Your task to perform on an android device: Toggle the flashlight Image 0: 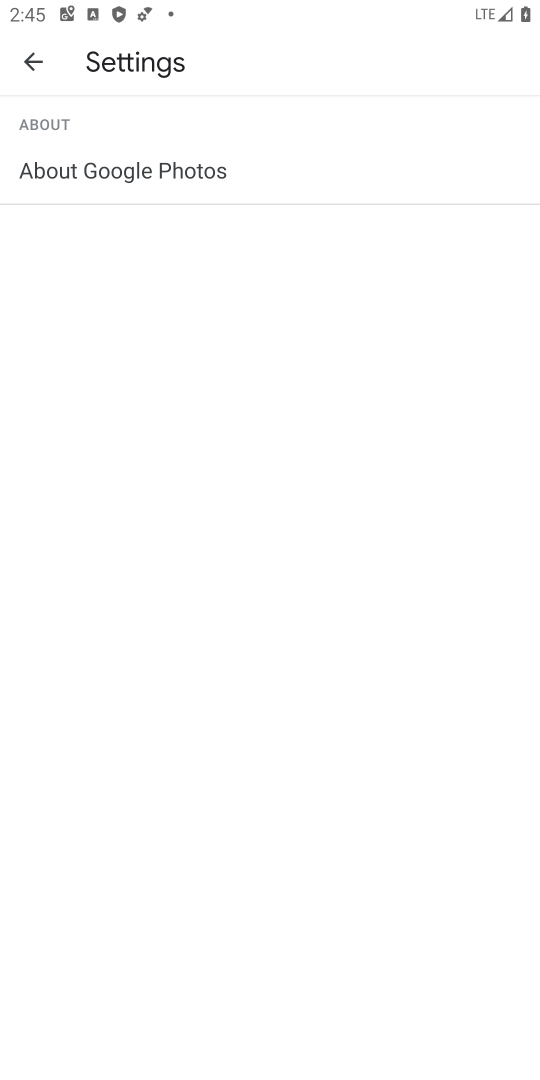
Step 0: press home button
Your task to perform on an android device: Toggle the flashlight Image 1: 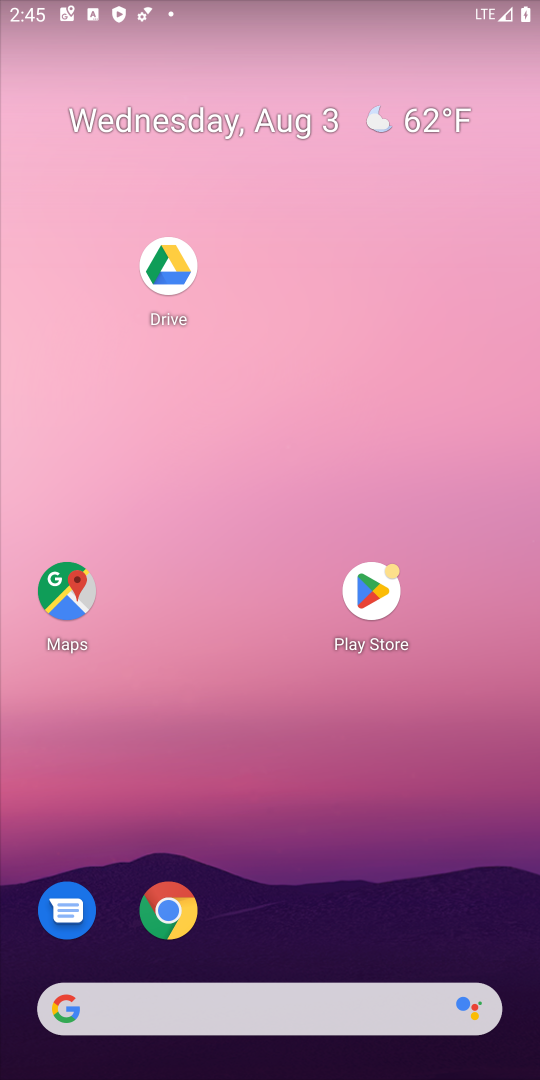
Step 1: task complete